Your task to perform on an android device: show emergency info Image 0: 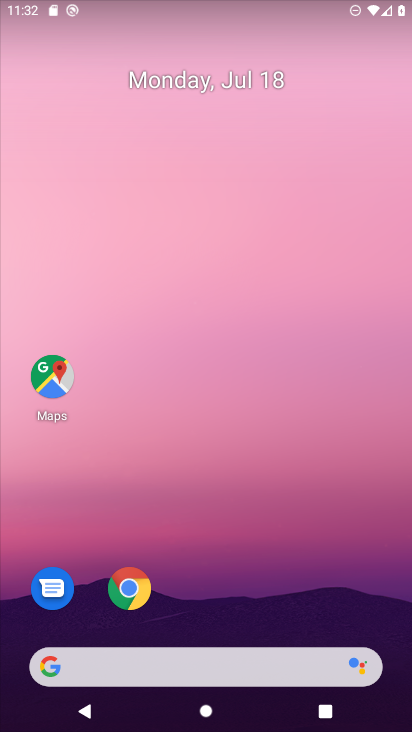
Step 0: drag from (189, 496) to (189, 263)
Your task to perform on an android device: show emergency info Image 1: 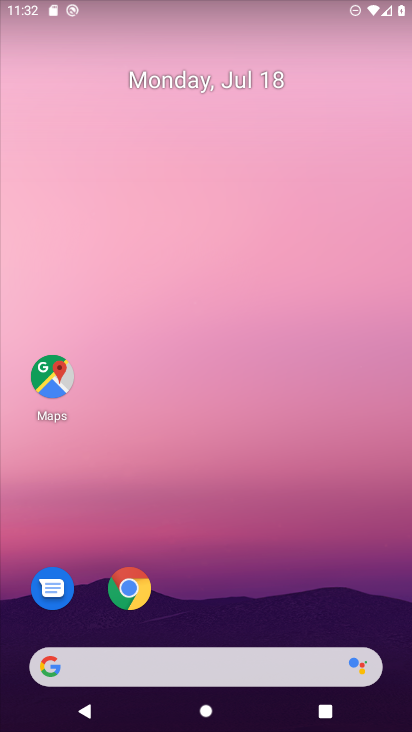
Step 1: drag from (226, 616) to (266, 49)
Your task to perform on an android device: show emergency info Image 2: 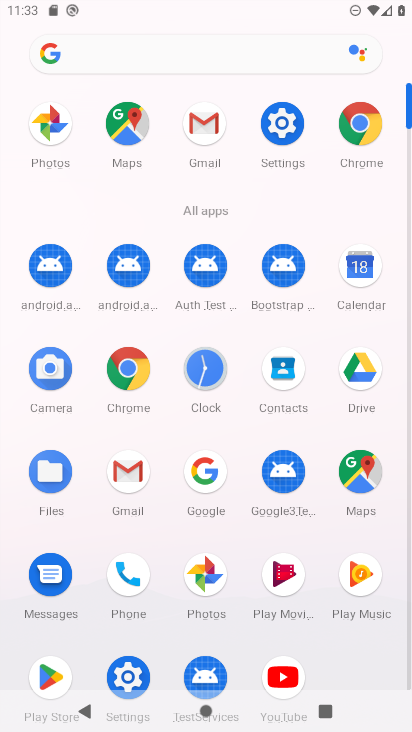
Step 2: click (269, 126)
Your task to perform on an android device: show emergency info Image 3: 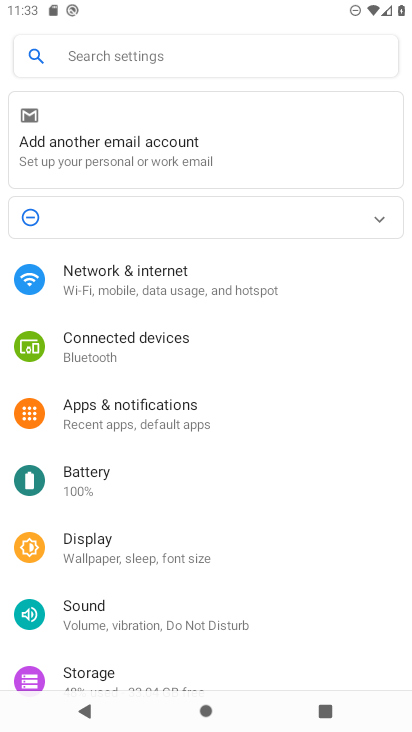
Step 3: drag from (143, 651) to (165, 169)
Your task to perform on an android device: show emergency info Image 4: 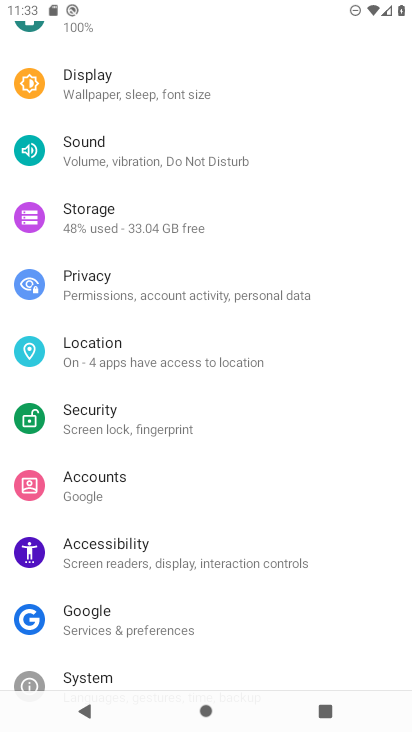
Step 4: drag from (130, 664) to (118, 384)
Your task to perform on an android device: show emergency info Image 5: 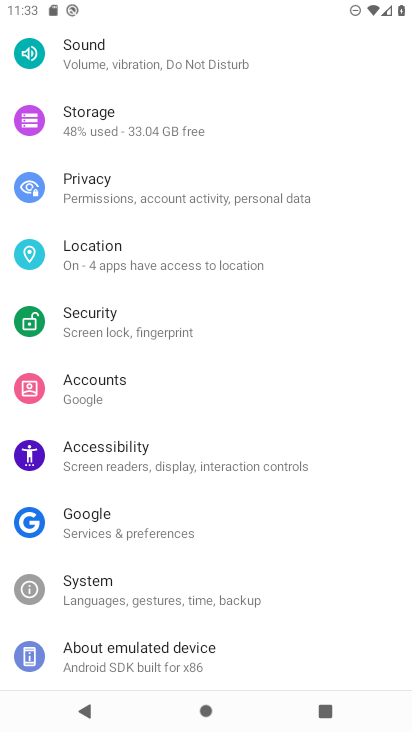
Step 5: click (129, 659)
Your task to perform on an android device: show emergency info Image 6: 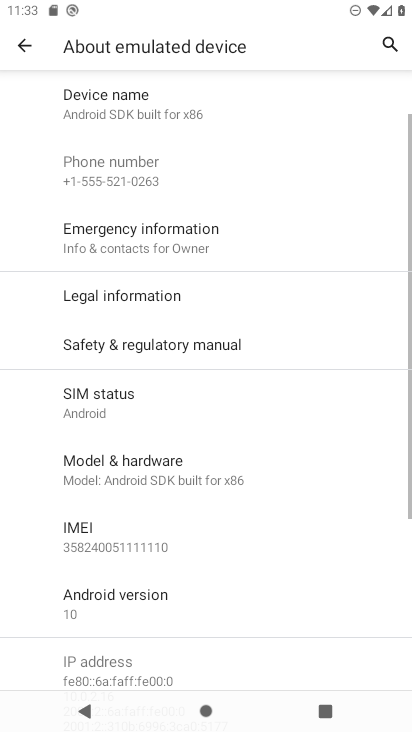
Step 6: click (117, 237)
Your task to perform on an android device: show emergency info Image 7: 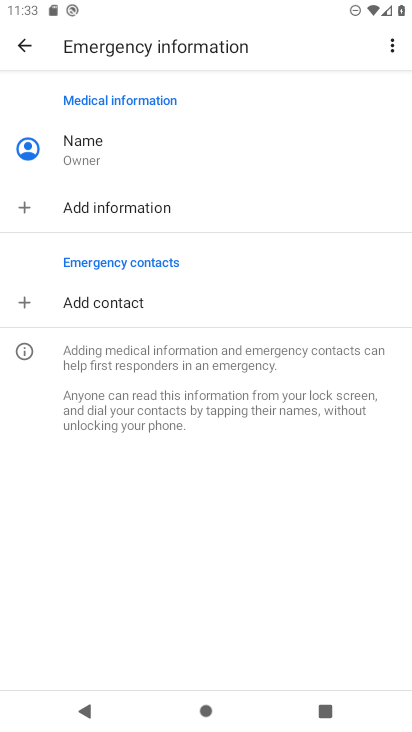
Step 7: task complete